Your task to perform on an android device: Open calendar and show me the fourth week of next month Image 0: 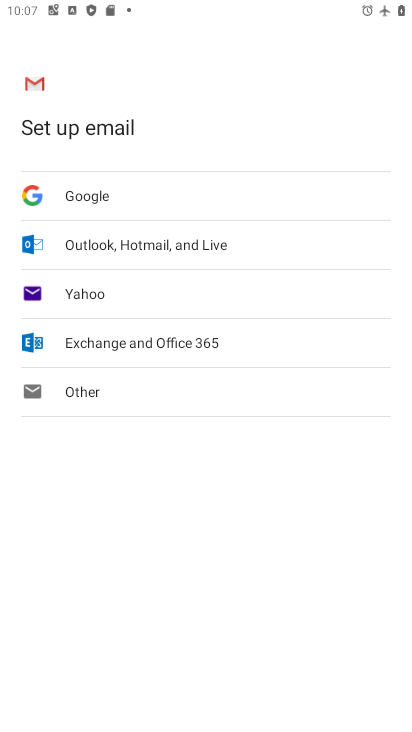
Step 0: press home button
Your task to perform on an android device: Open calendar and show me the fourth week of next month Image 1: 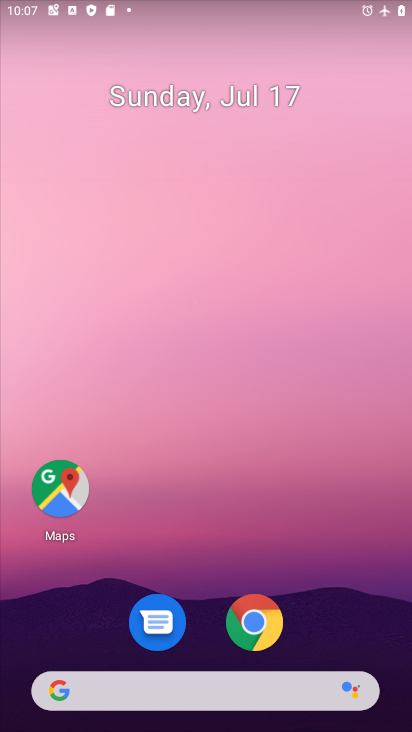
Step 1: drag from (208, 628) to (319, 179)
Your task to perform on an android device: Open calendar and show me the fourth week of next month Image 2: 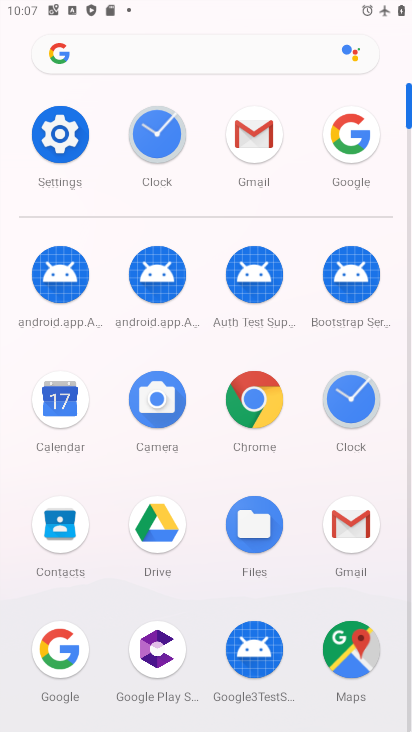
Step 2: click (52, 406)
Your task to perform on an android device: Open calendar and show me the fourth week of next month Image 3: 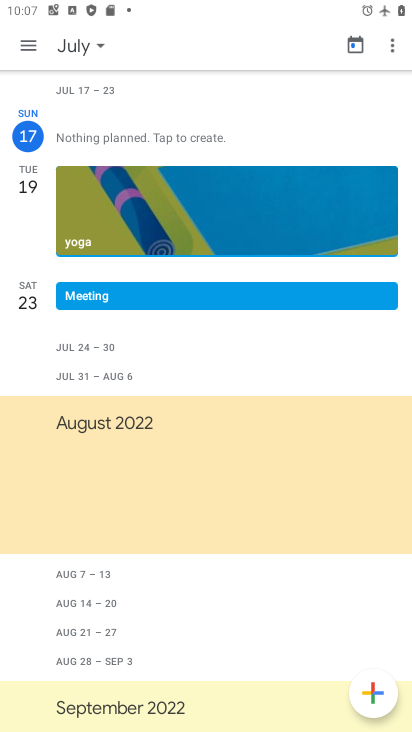
Step 3: click (59, 47)
Your task to perform on an android device: Open calendar and show me the fourth week of next month Image 4: 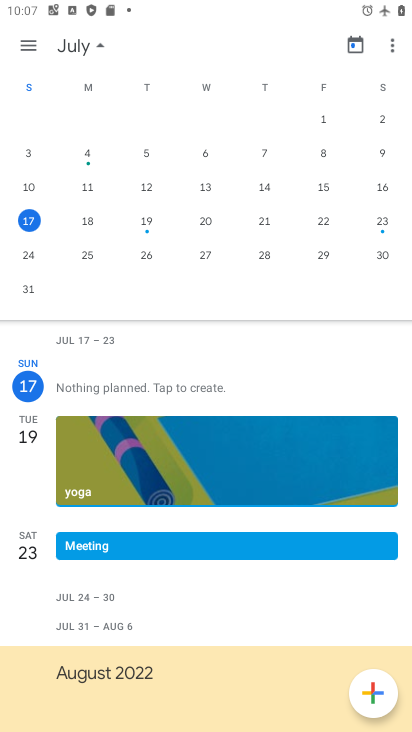
Step 4: drag from (391, 216) to (36, 262)
Your task to perform on an android device: Open calendar and show me the fourth week of next month Image 5: 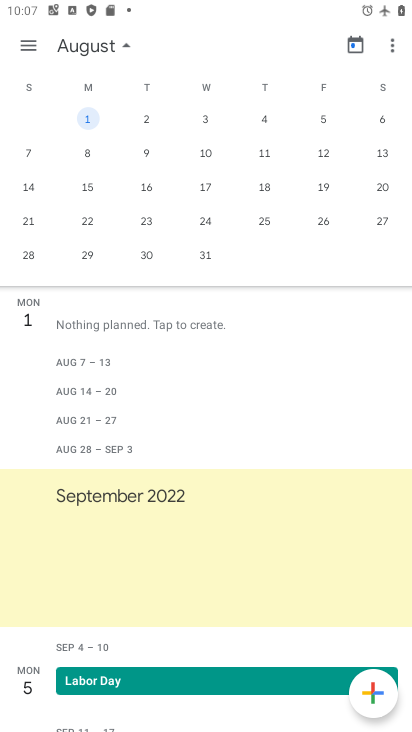
Step 5: click (24, 226)
Your task to perform on an android device: Open calendar and show me the fourth week of next month Image 6: 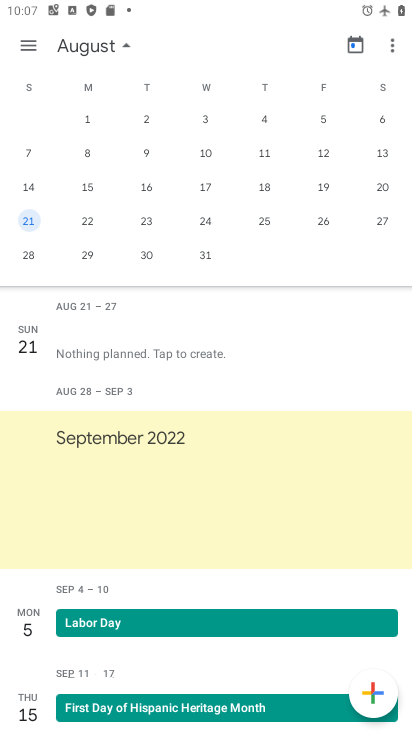
Step 6: task complete